Your task to perform on an android device: What's the weather? Image 0: 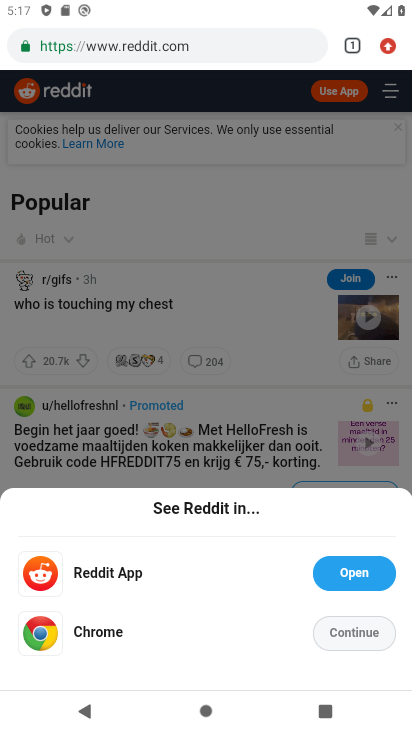
Step 0: press back button
Your task to perform on an android device: What's the weather? Image 1: 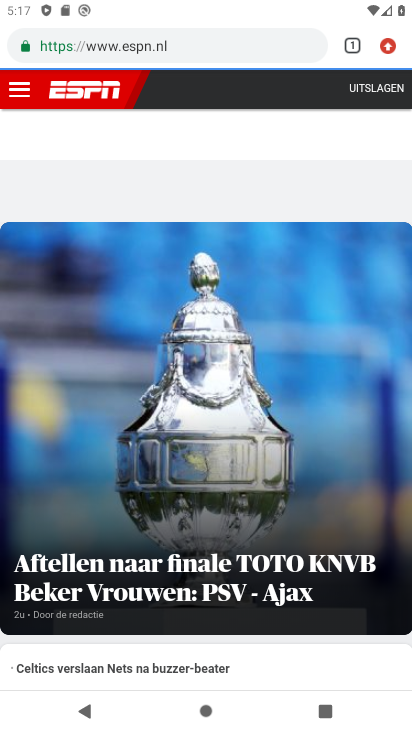
Step 1: press home button
Your task to perform on an android device: What's the weather? Image 2: 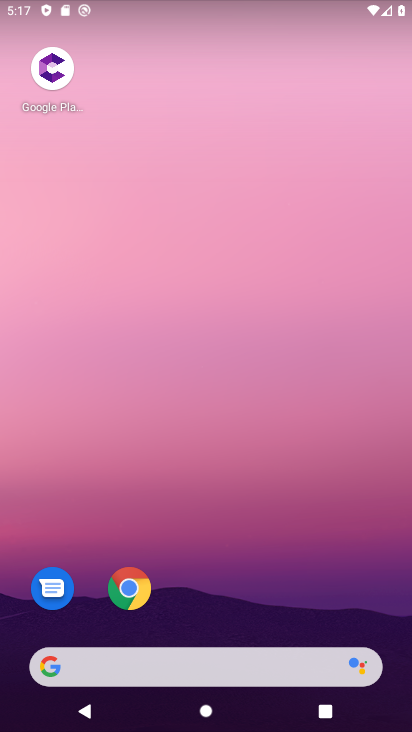
Step 2: click (133, 671)
Your task to perform on an android device: What's the weather? Image 3: 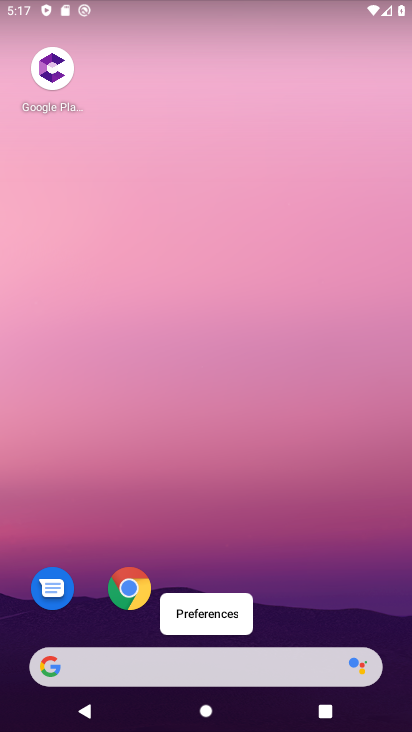
Step 3: click (133, 671)
Your task to perform on an android device: What's the weather? Image 4: 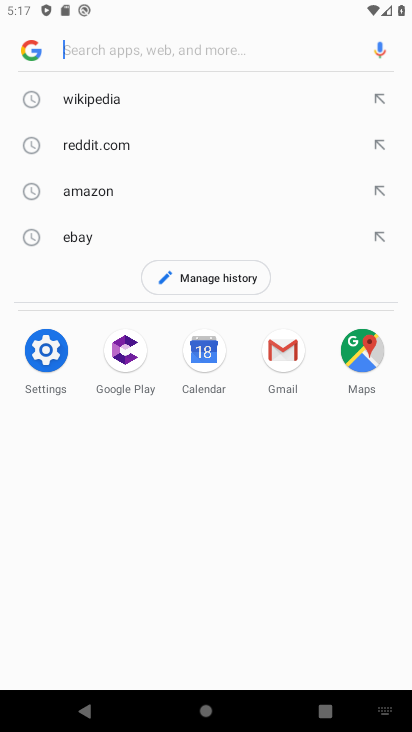
Step 4: type "weather"
Your task to perform on an android device: What's the weather? Image 5: 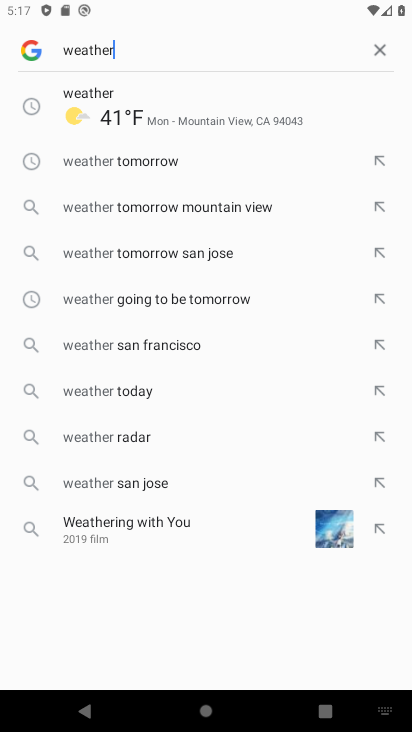
Step 5: click (114, 106)
Your task to perform on an android device: What's the weather? Image 6: 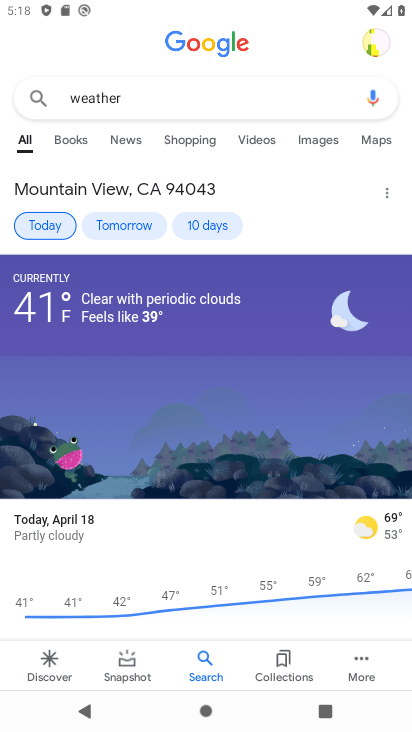
Step 6: task complete